Your task to perform on an android device: When is my next appointment? Image 0: 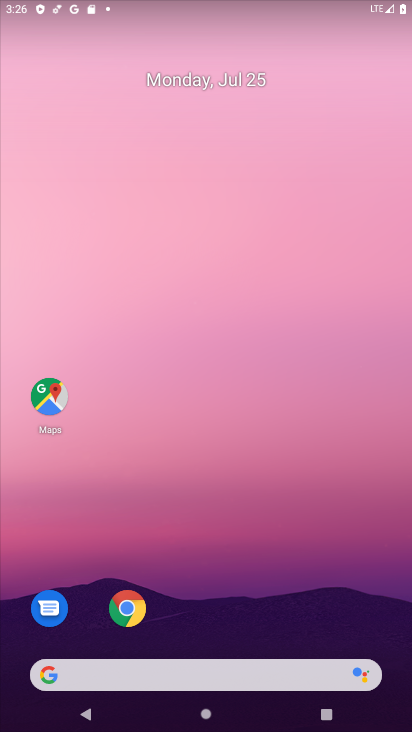
Step 0: drag from (9, 583) to (405, 615)
Your task to perform on an android device: When is my next appointment? Image 1: 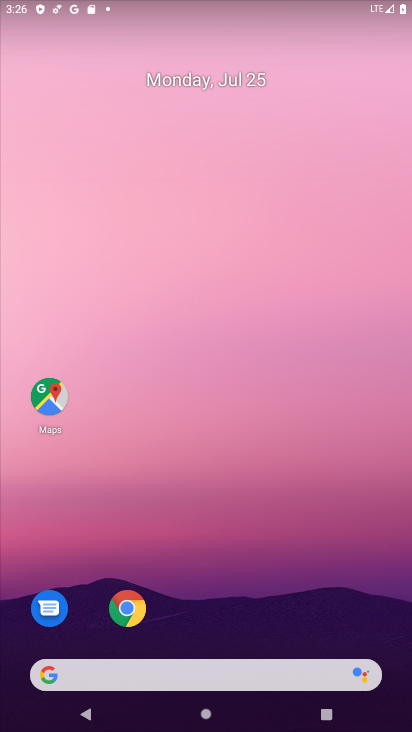
Step 1: task complete